Your task to perform on an android device: turn off improve location accuracy Image 0: 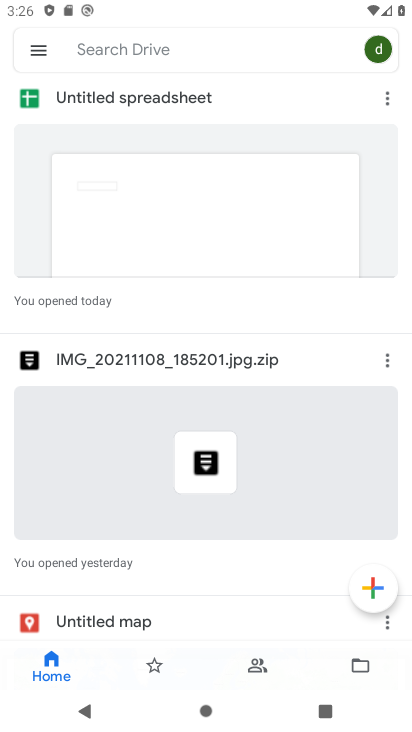
Step 0: press home button
Your task to perform on an android device: turn off improve location accuracy Image 1: 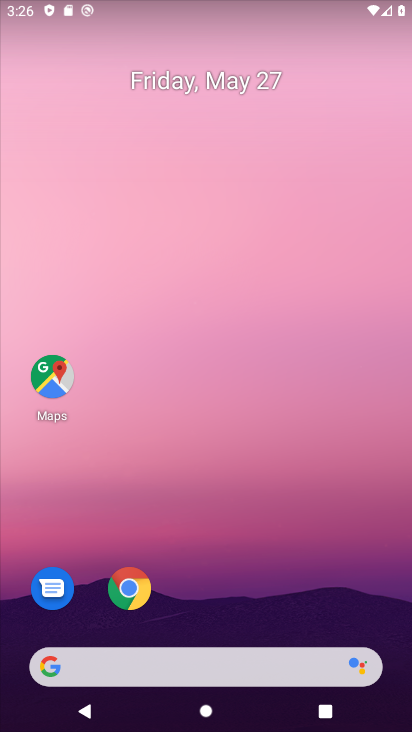
Step 1: drag from (207, 646) to (148, 39)
Your task to perform on an android device: turn off improve location accuracy Image 2: 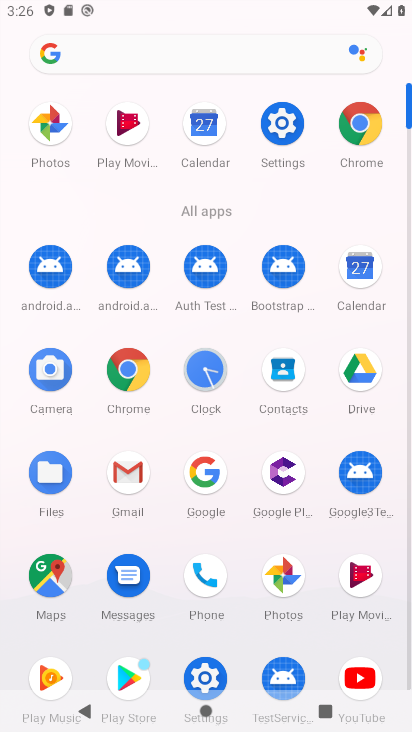
Step 2: click (290, 130)
Your task to perform on an android device: turn off improve location accuracy Image 3: 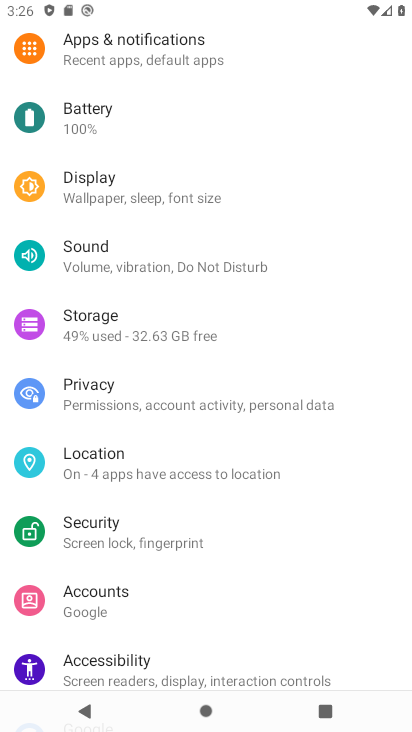
Step 3: click (112, 465)
Your task to perform on an android device: turn off improve location accuracy Image 4: 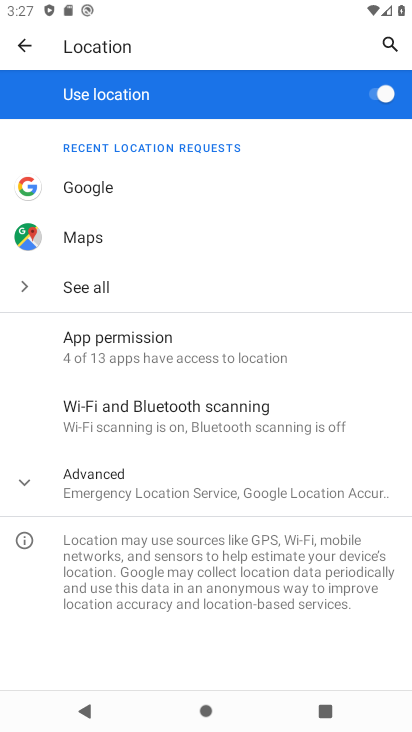
Step 4: click (144, 481)
Your task to perform on an android device: turn off improve location accuracy Image 5: 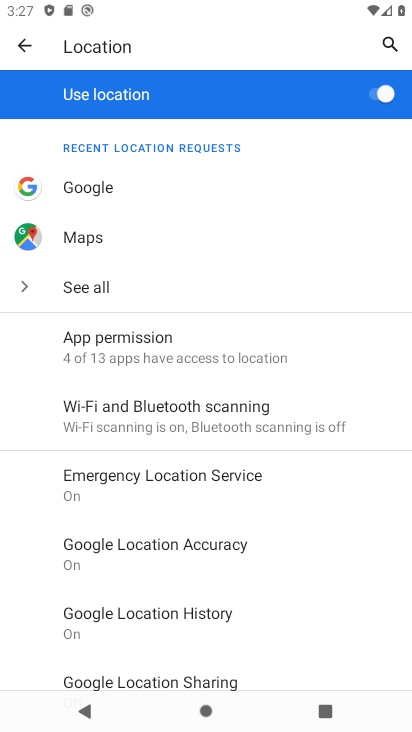
Step 5: click (176, 534)
Your task to perform on an android device: turn off improve location accuracy Image 6: 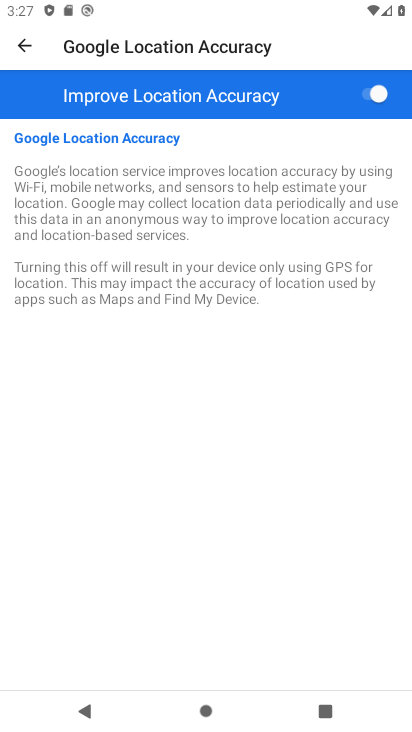
Step 6: click (340, 87)
Your task to perform on an android device: turn off improve location accuracy Image 7: 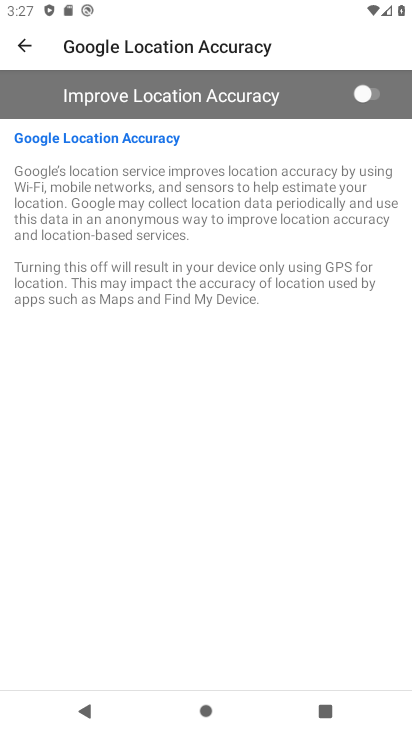
Step 7: task complete